Your task to perform on an android device: toggle notification dots Image 0: 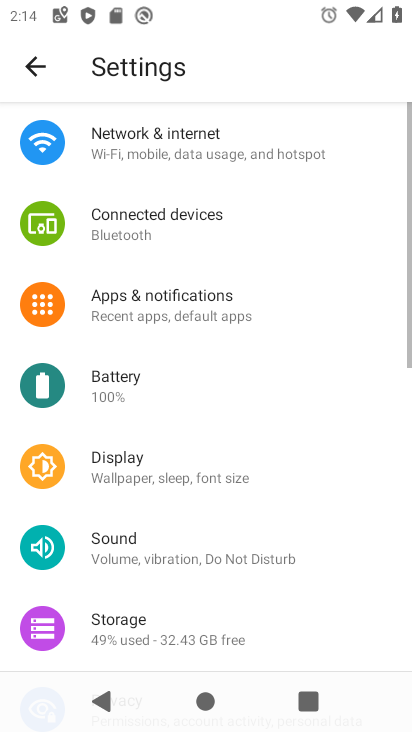
Step 0: press home button
Your task to perform on an android device: toggle notification dots Image 1: 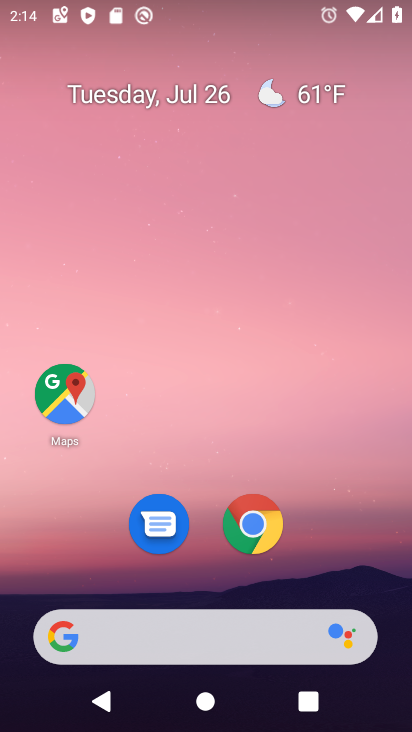
Step 1: drag from (150, 633) to (227, 211)
Your task to perform on an android device: toggle notification dots Image 2: 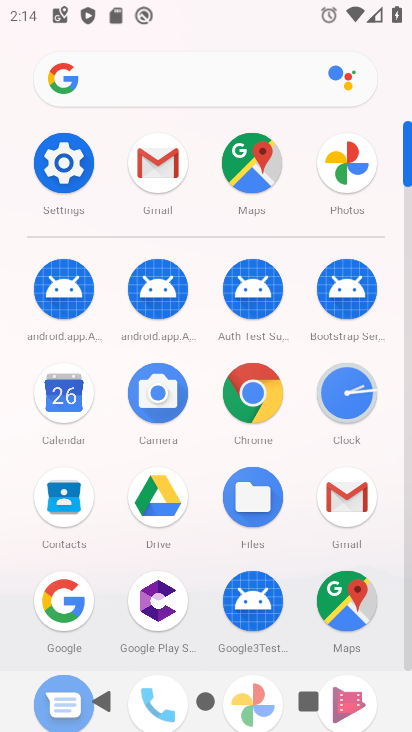
Step 2: click (72, 166)
Your task to perform on an android device: toggle notification dots Image 3: 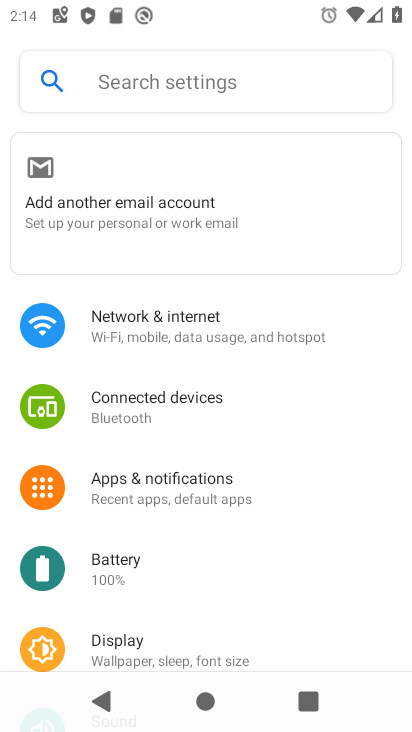
Step 3: drag from (260, 611) to (334, 190)
Your task to perform on an android device: toggle notification dots Image 4: 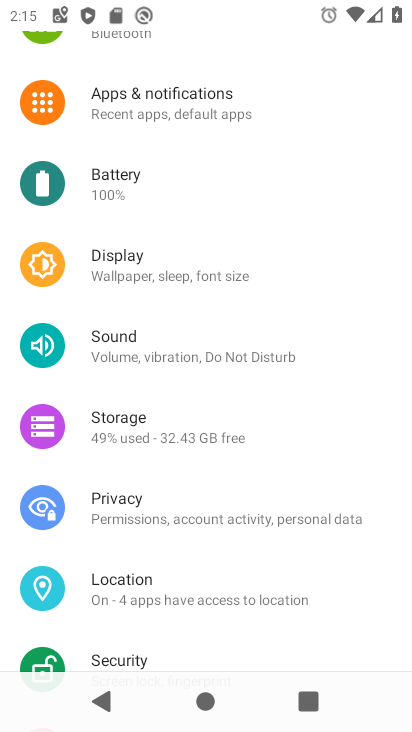
Step 4: click (176, 83)
Your task to perform on an android device: toggle notification dots Image 5: 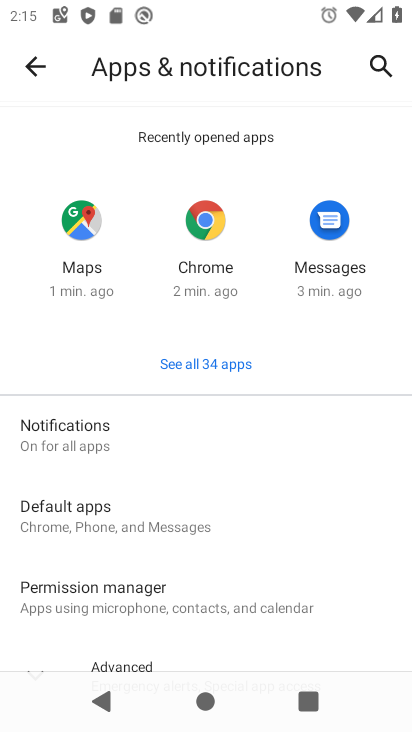
Step 5: click (95, 435)
Your task to perform on an android device: toggle notification dots Image 6: 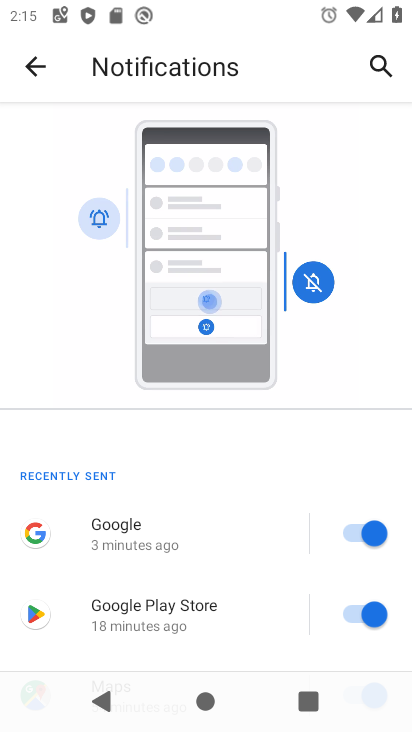
Step 6: drag from (256, 607) to (312, 140)
Your task to perform on an android device: toggle notification dots Image 7: 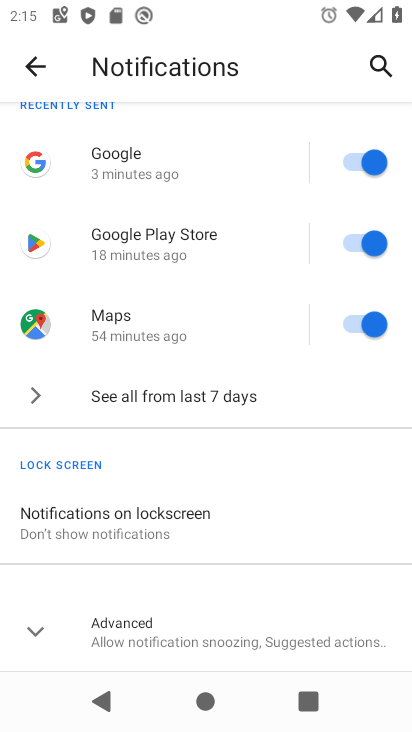
Step 7: drag from (250, 535) to (280, 260)
Your task to perform on an android device: toggle notification dots Image 8: 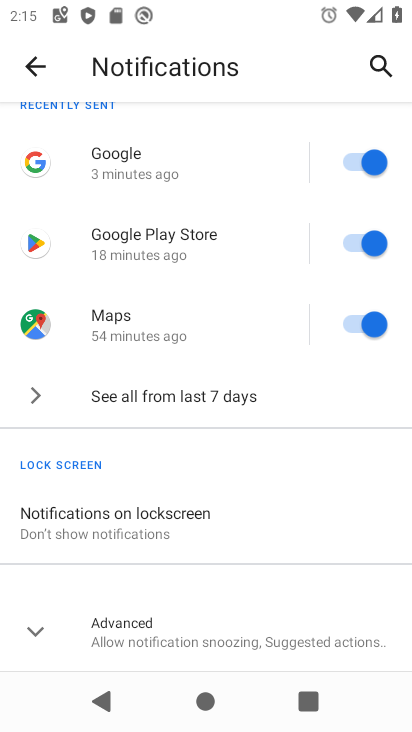
Step 8: click (133, 625)
Your task to perform on an android device: toggle notification dots Image 9: 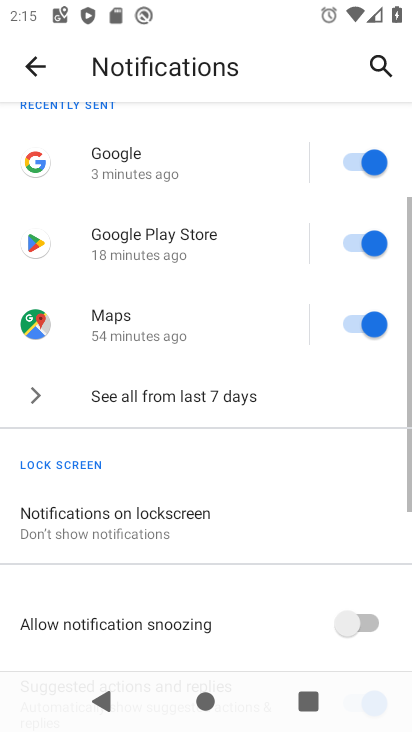
Step 9: drag from (245, 604) to (315, 137)
Your task to perform on an android device: toggle notification dots Image 10: 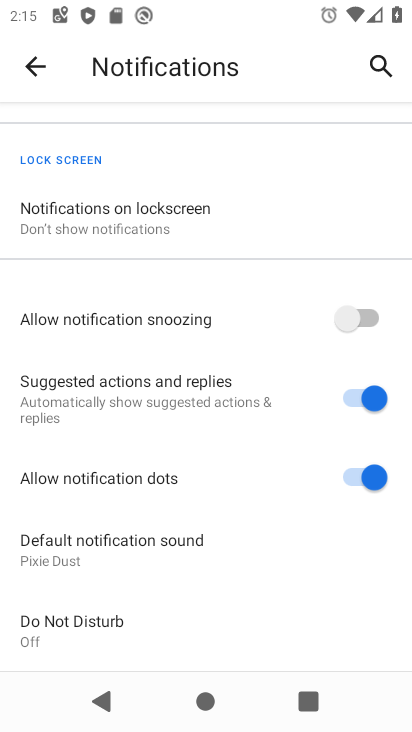
Step 10: click (357, 475)
Your task to perform on an android device: toggle notification dots Image 11: 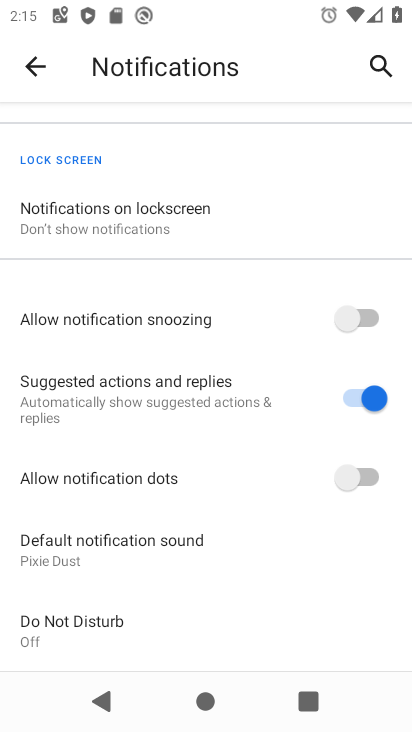
Step 11: task complete